Your task to perform on an android device: refresh tabs in the chrome app Image 0: 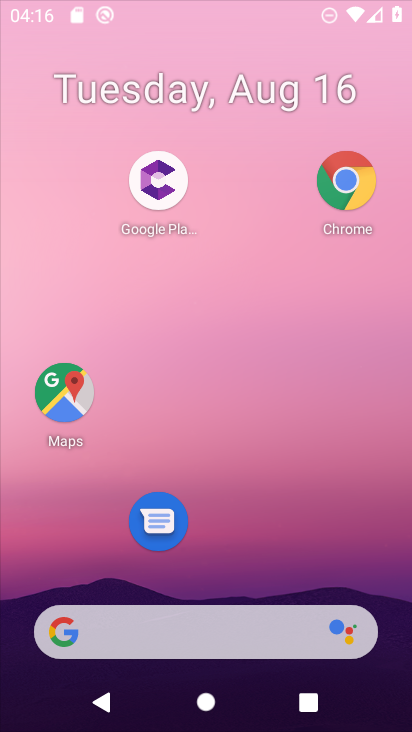
Step 0: press home button
Your task to perform on an android device: refresh tabs in the chrome app Image 1: 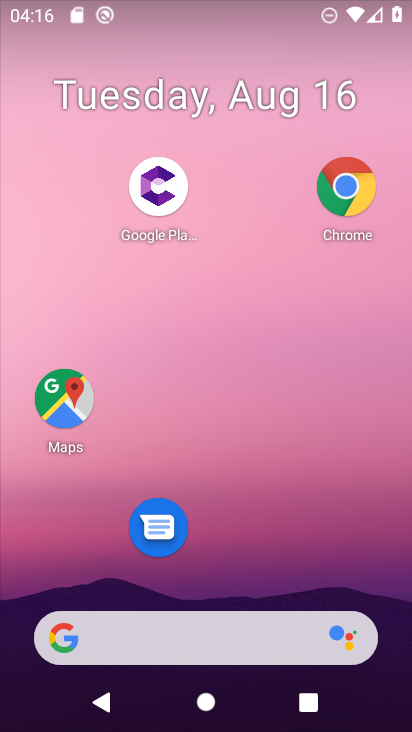
Step 1: click (343, 182)
Your task to perform on an android device: refresh tabs in the chrome app Image 2: 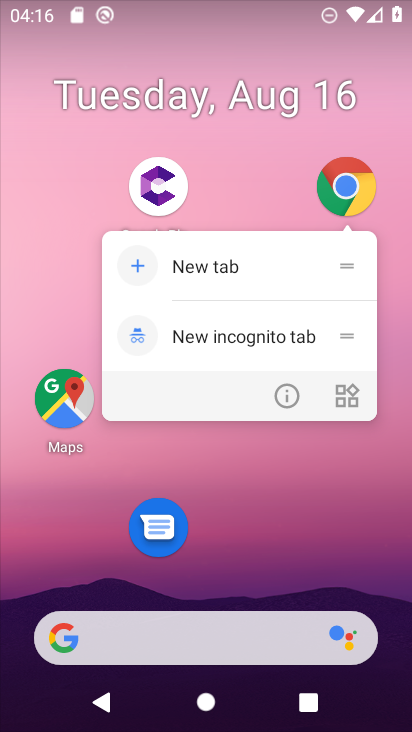
Step 2: click (342, 186)
Your task to perform on an android device: refresh tabs in the chrome app Image 3: 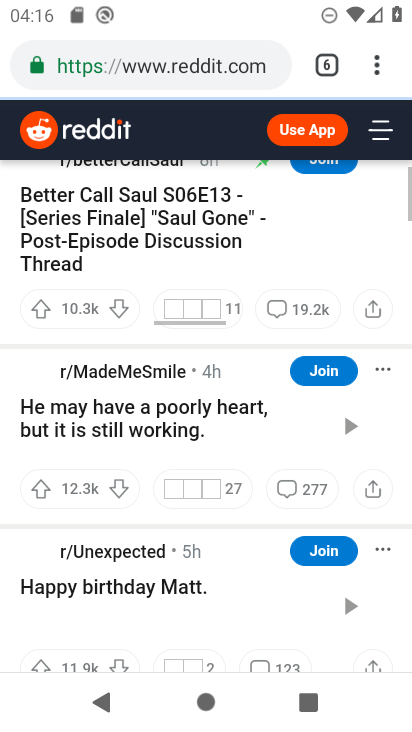
Step 3: click (380, 61)
Your task to perform on an android device: refresh tabs in the chrome app Image 4: 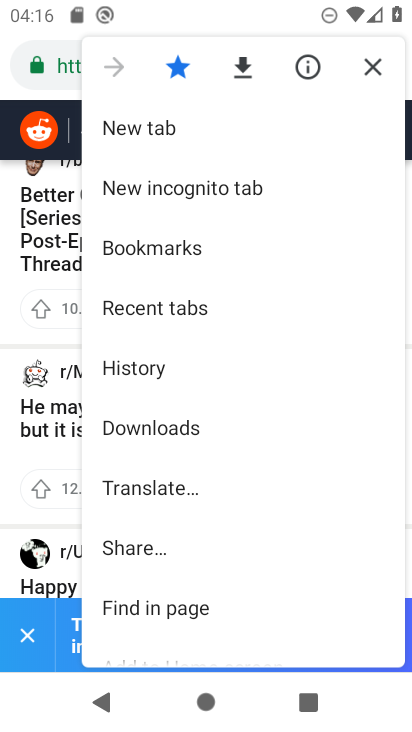
Step 4: click (370, 67)
Your task to perform on an android device: refresh tabs in the chrome app Image 5: 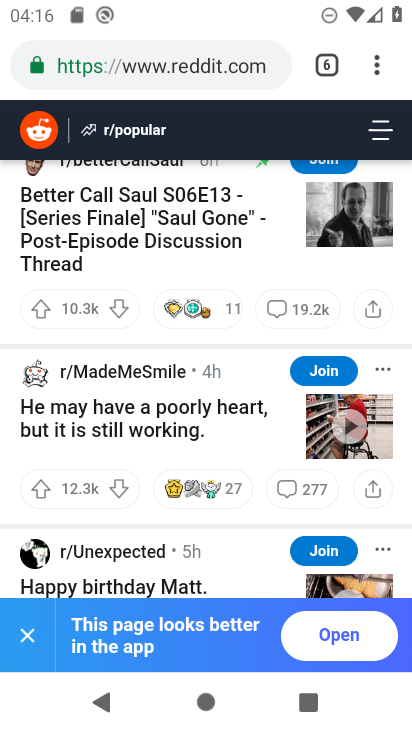
Step 5: task complete